Your task to perform on an android device: change the clock style Image 0: 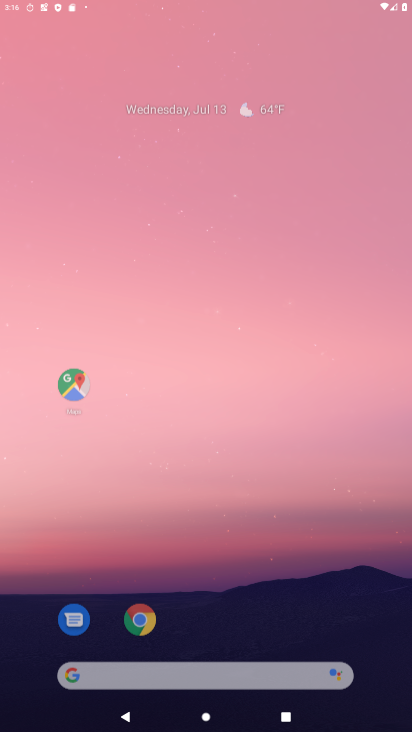
Step 0: press home button
Your task to perform on an android device: change the clock style Image 1: 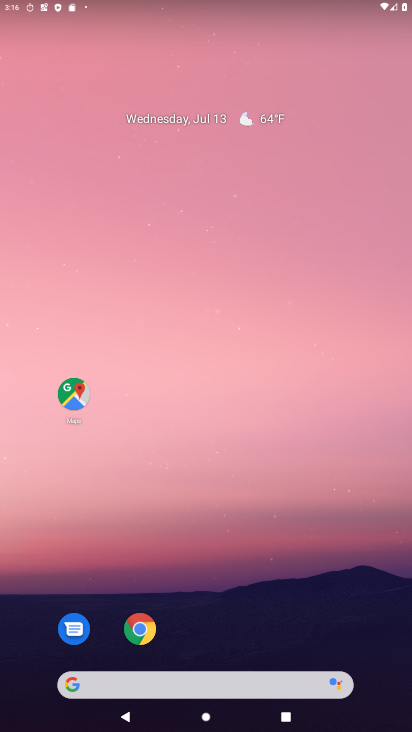
Step 1: drag from (210, 4) to (253, 599)
Your task to perform on an android device: change the clock style Image 2: 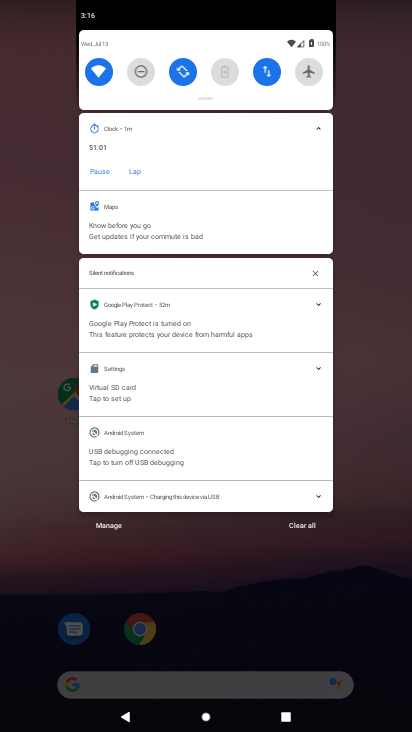
Step 2: drag from (266, 540) to (298, 55)
Your task to perform on an android device: change the clock style Image 3: 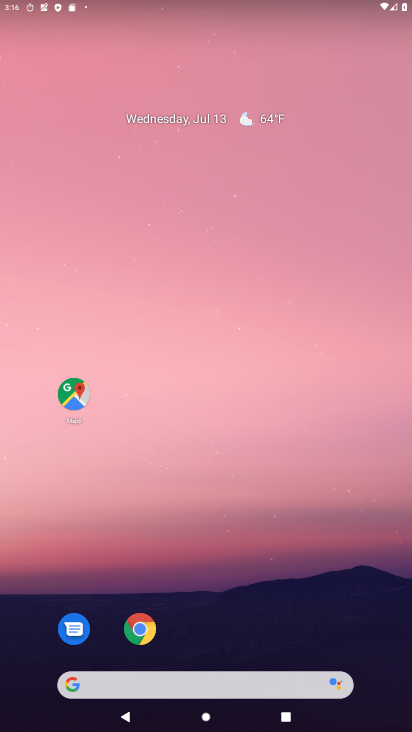
Step 3: drag from (250, 646) to (304, 69)
Your task to perform on an android device: change the clock style Image 4: 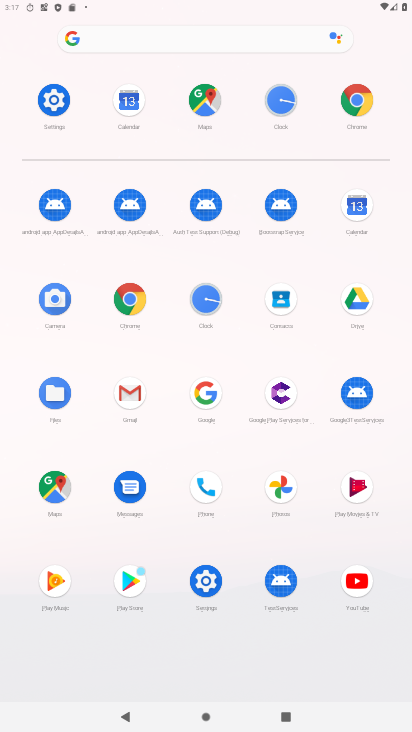
Step 4: click (205, 299)
Your task to perform on an android device: change the clock style Image 5: 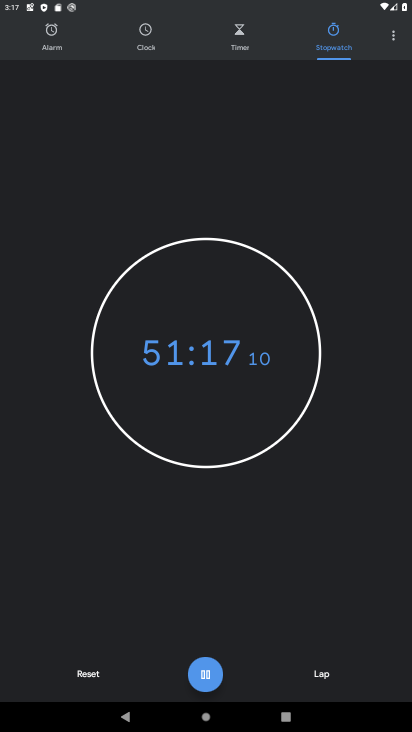
Step 5: click (393, 37)
Your task to perform on an android device: change the clock style Image 6: 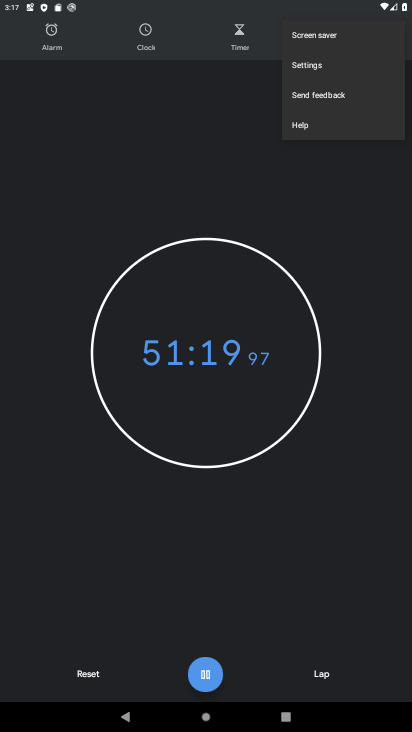
Step 6: click (321, 72)
Your task to perform on an android device: change the clock style Image 7: 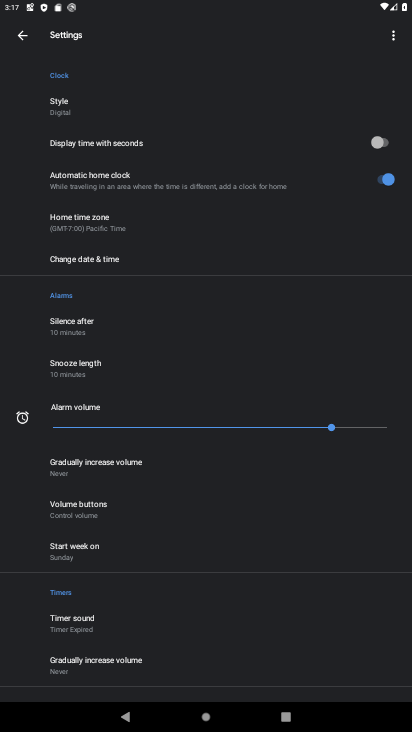
Step 7: click (63, 103)
Your task to perform on an android device: change the clock style Image 8: 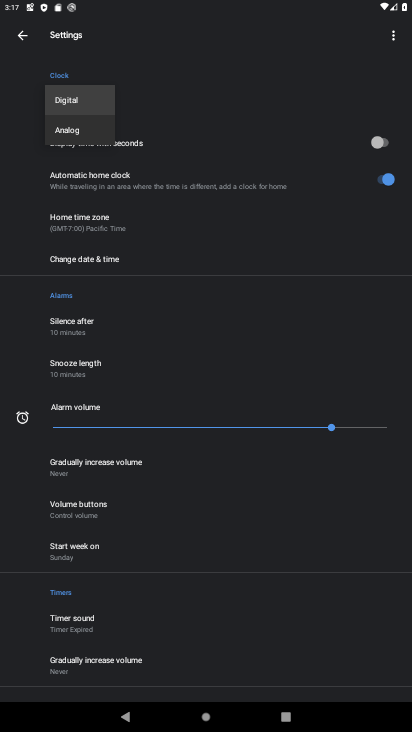
Step 8: click (88, 139)
Your task to perform on an android device: change the clock style Image 9: 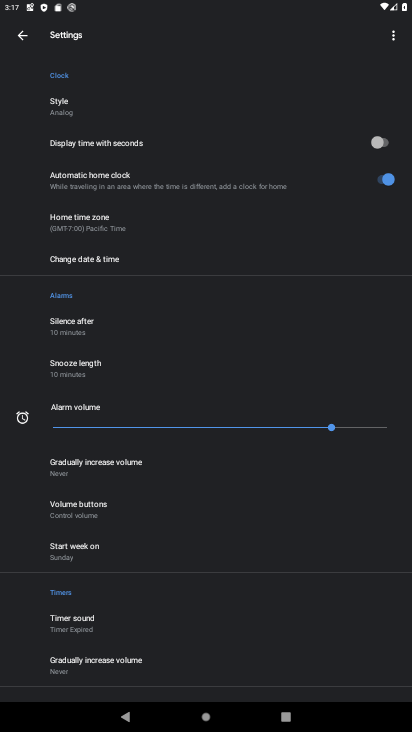
Step 9: task complete